Your task to perform on an android device: Go to battery settings Image 0: 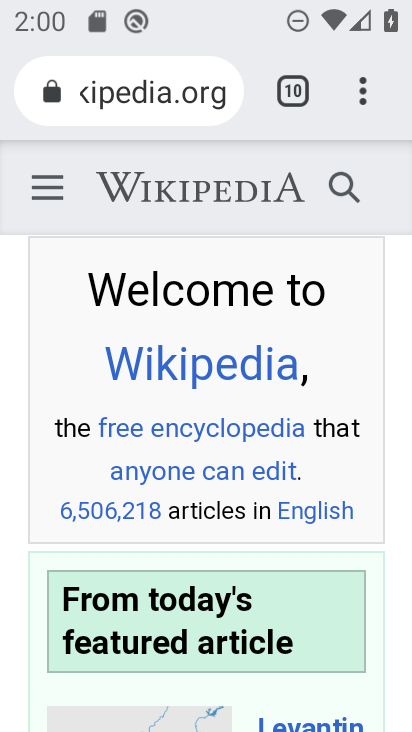
Step 0: press home button
Your task to perform on an android device: Go to battery settings Image 1: 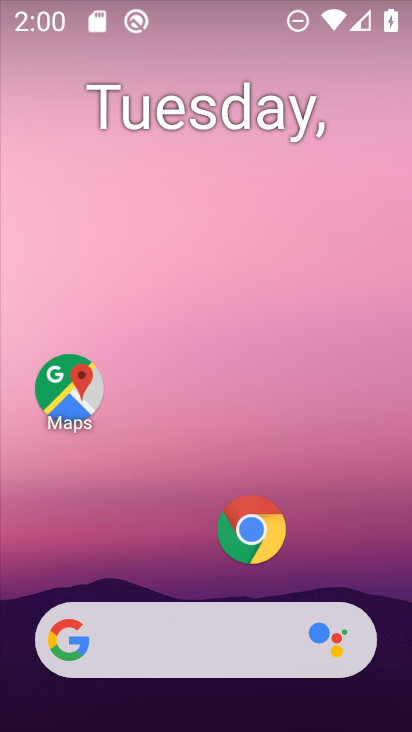
Step 1: drag from (180, 680) to (262, 140)
Your task to perform on an android device: Go to battery settings Image 2: 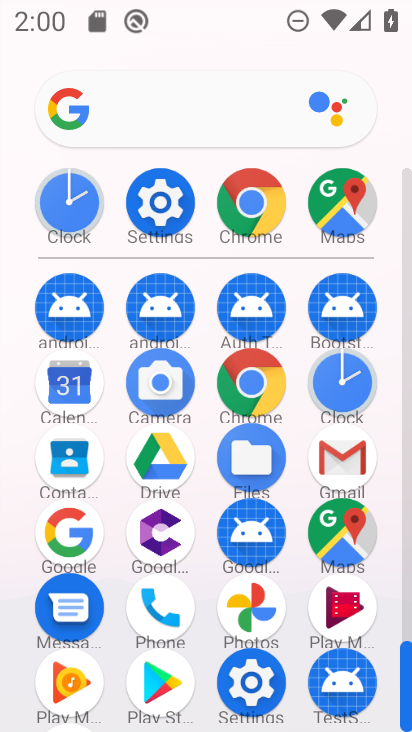
Step 2: click (147, 183)
Your task to perform on an android device: Go to battery settings Image 3: 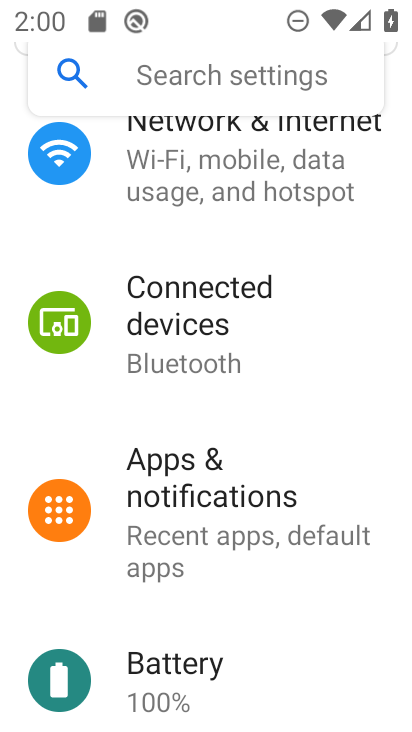
Step 3: click (154, 663)
Your task to perform on an android device: Go to battery settings Image 4: 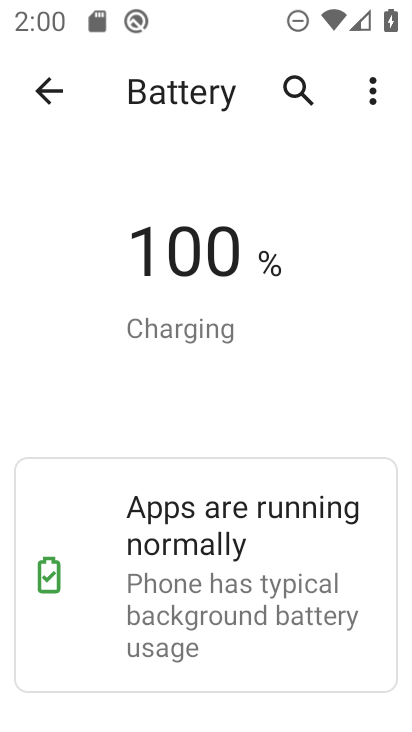
Step 4: task complete